Your task to perform on an android device: Open calendar and show me the first week of next month Image 0: 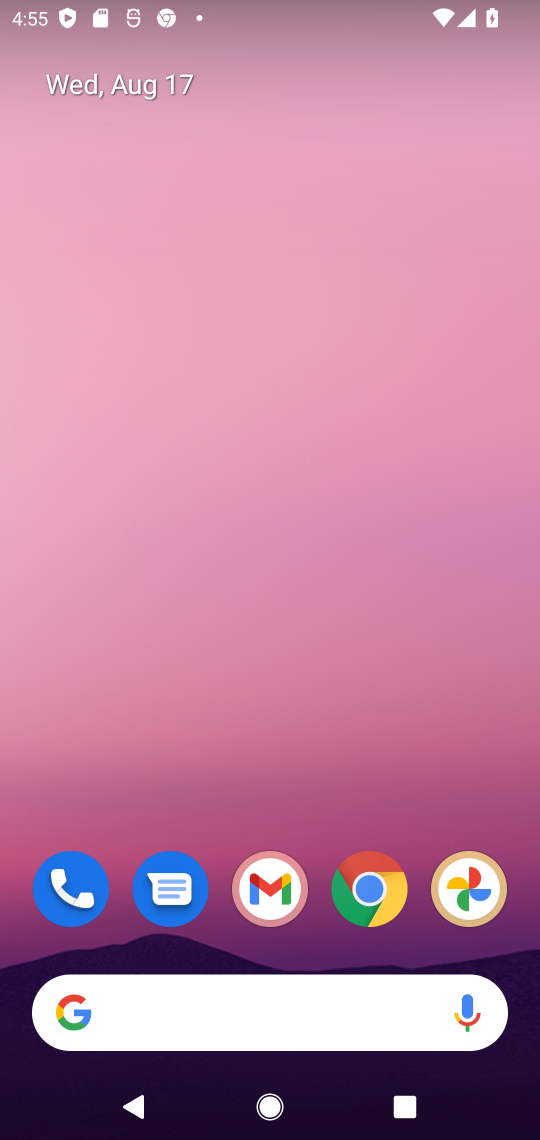
Step 0: drag from (269, 795) to (340, 26)
Your task to perform on an android device: Open calendar and show me the first week of next month Image 1: 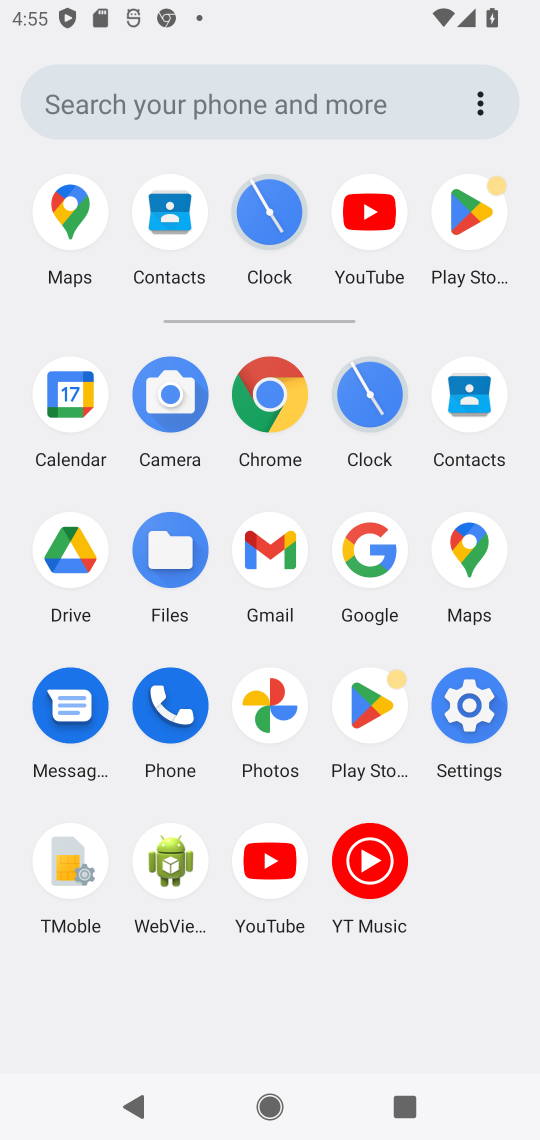
Step 1: click (70, 392)
Your task to perform on an android device: Open calendar and show me the first week of next month Image 2: 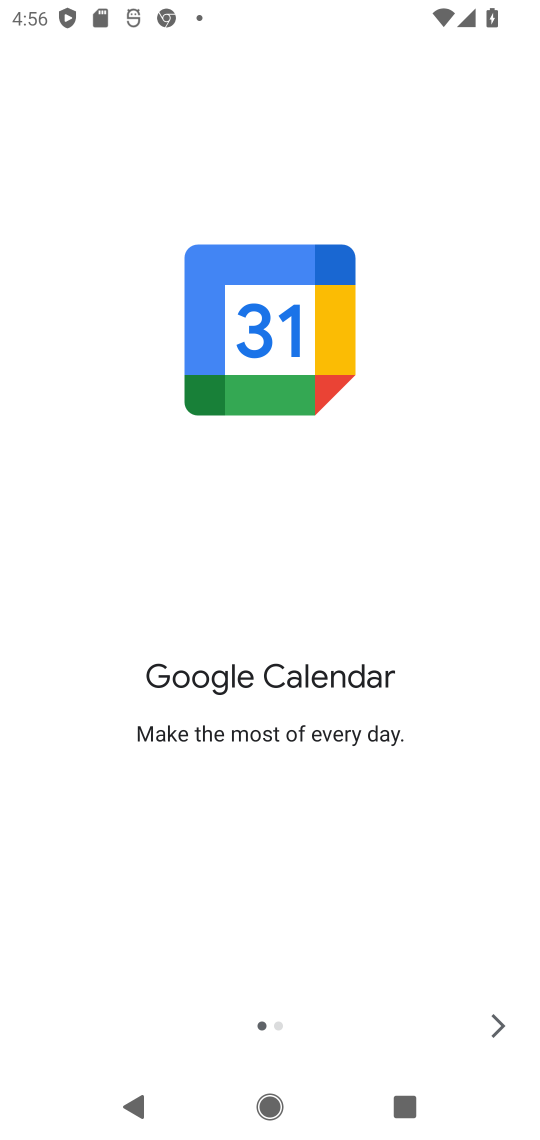
Step 2: click (501, 1024)
Your task to perform on an android device: Open calendar and show me the first week of next month Image 3: 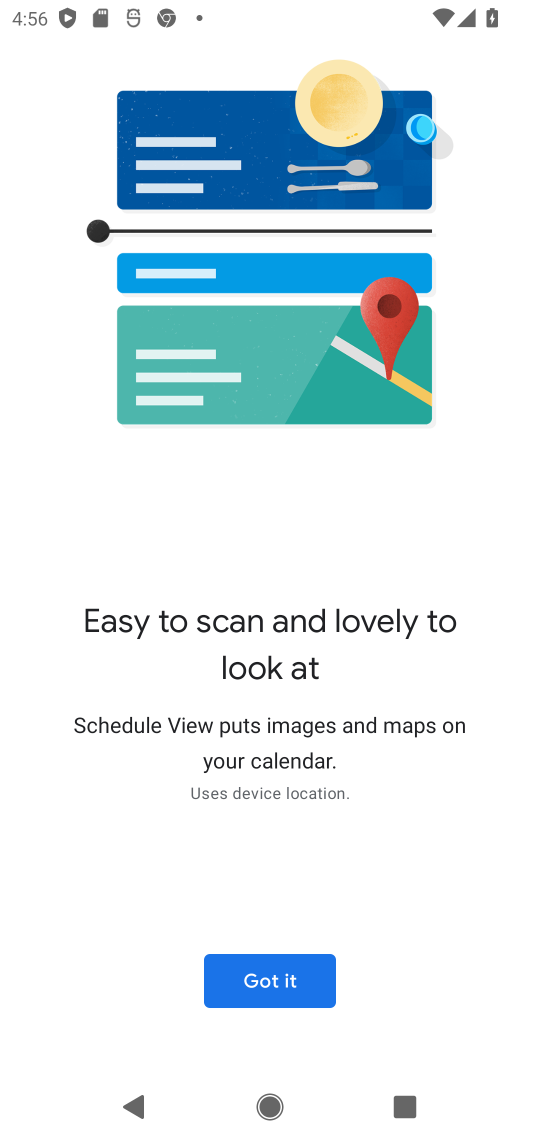
Step 3: click (267, 984)
Your task to perform on an android device: Open calendar and show me the first week of next month Image 4: 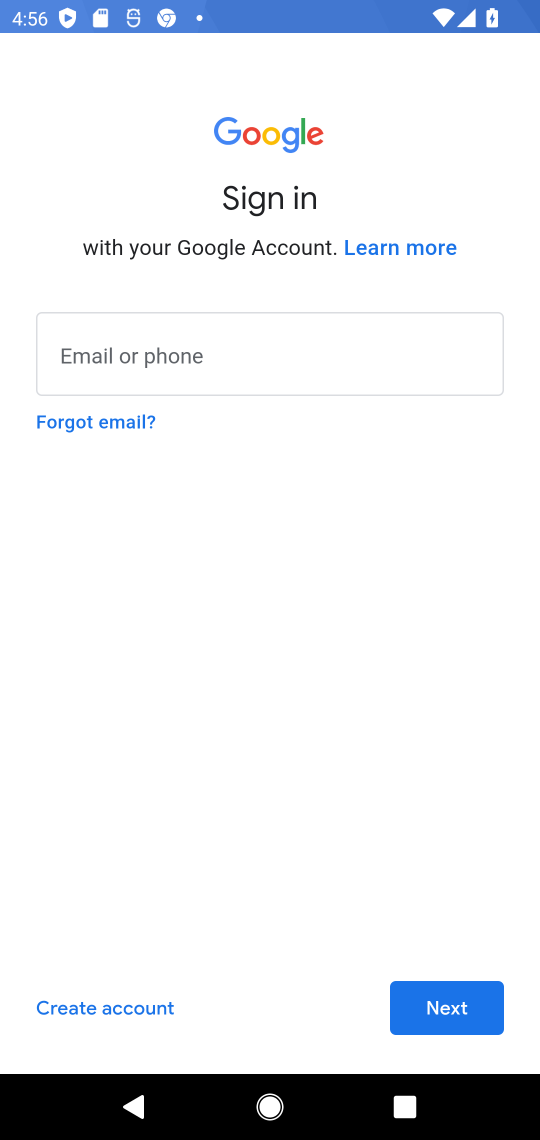
Step 4: task complete